Your task to perform on an android device: Search for Italian restaurants on Maps Image 0: 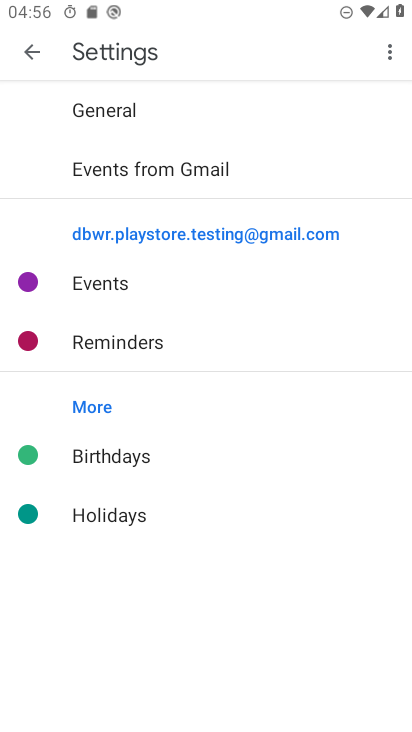
Step 0: press home button
Your task to perform on an android device: Search for Italian restaurants on Maps Image 1: 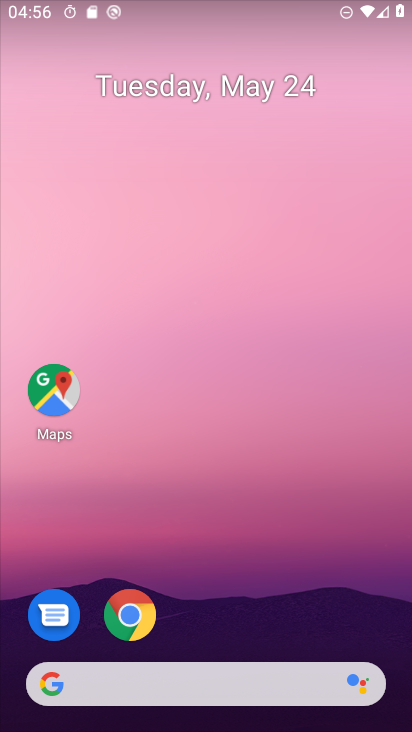
Step 1: click (32, 377)
Your task to perform on an android device: Search for Italian restaurants on Maps Image 2: 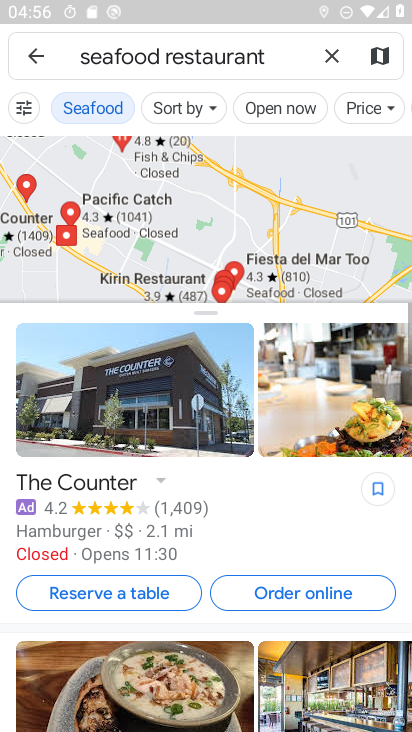
Step 2: click (334, 55)
Your task to perform on an android device: Search for Italian restaurants on Maps Image 3: 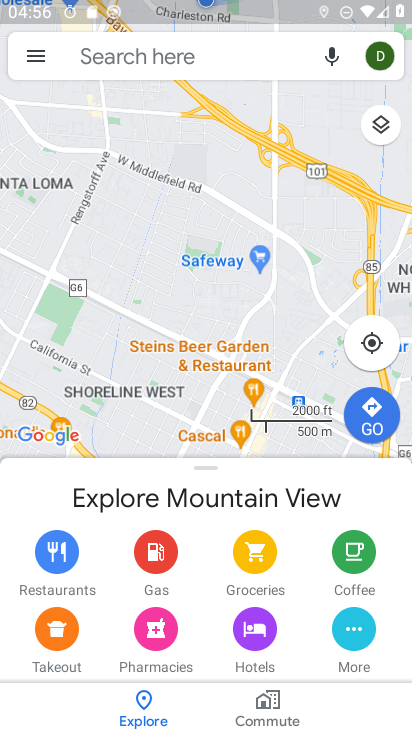
Step 3: click (180, 63)
Your task to perform on an android device: Search for Italian restaurants on Maps Image 4: 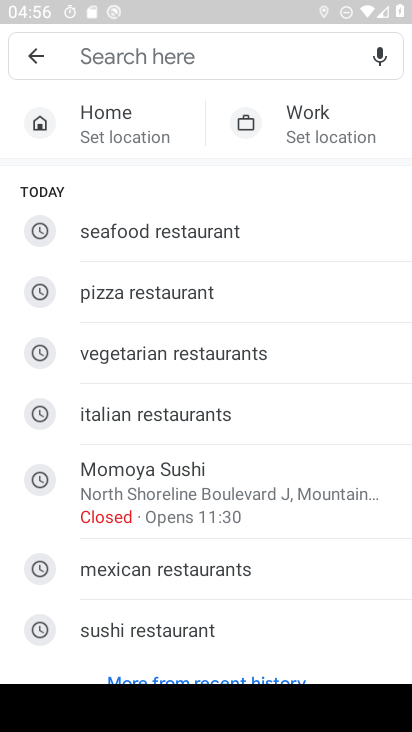
Step 4: click (142, 410)
Your task to perform on an android device: Search for Italian restaurants on Maps Image 5: 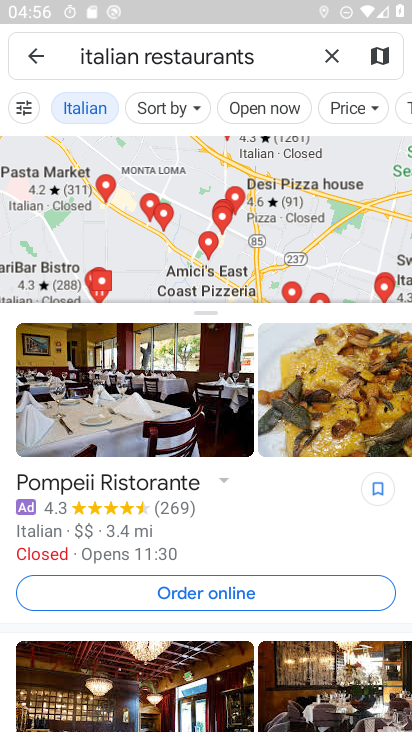
Step 5: task complete